Your task to perform on an android device: create a new album in the google photos Image 0: 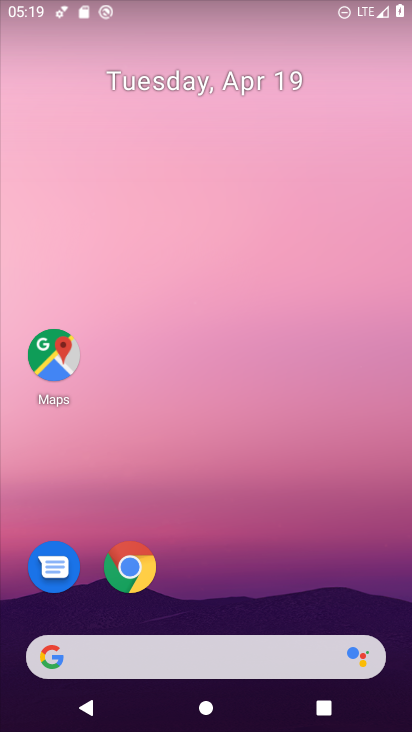
Step 0: drag from (193, 585) to (204, 76)
Your task to perform on an android device: create a new album in the google photos Image 1: 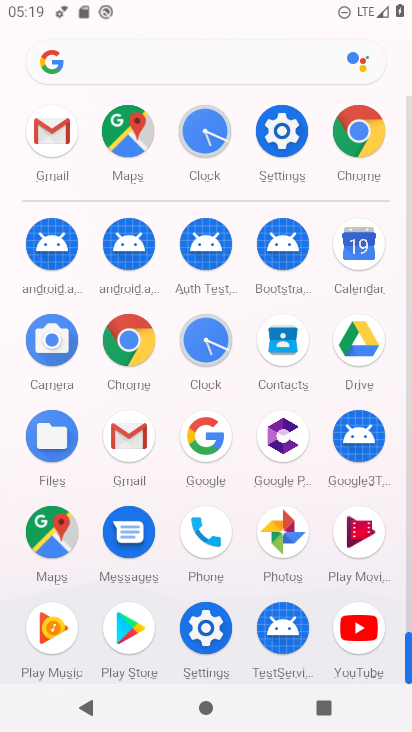
Step 1: click (303, 533)
Your task to perform on an android device: create a new album in the google photos Image 2: 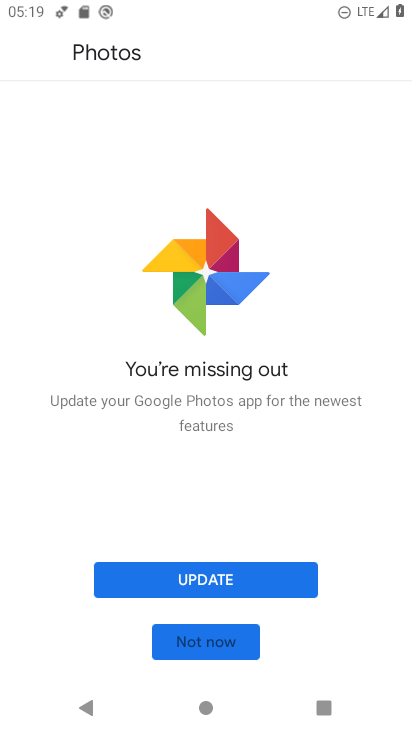
Step 2: click (201, 582)
Your task to perform on an android device: create a new album in the google photos Image 3: 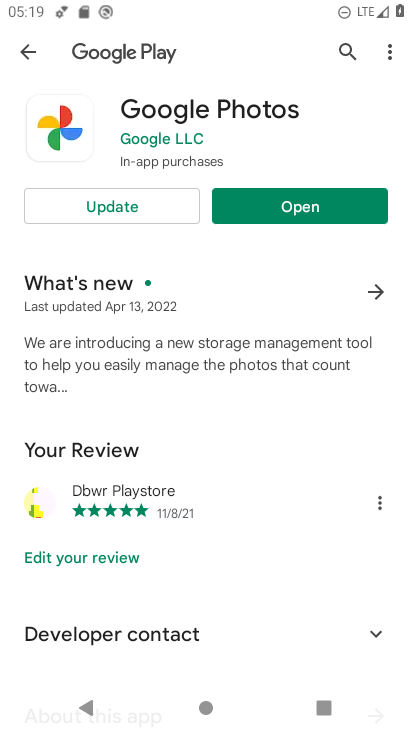
Step 3: click (170, 205)
Your task to perform on an android device: create a new album in the google photos Image 4: 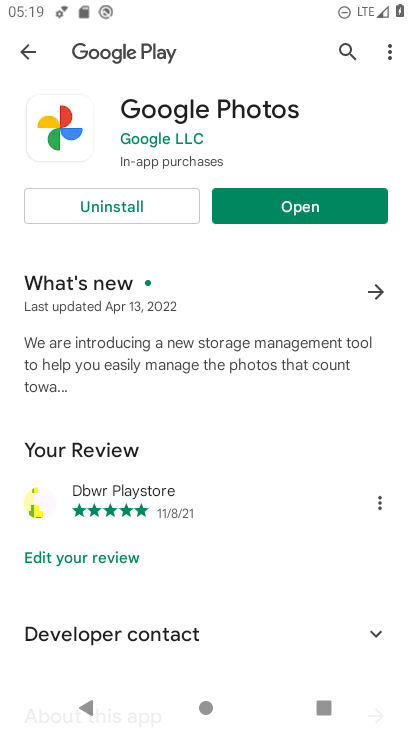
Step 4: click (275, 212)
Your task to perform on an android device: create a new album in the google photos Image 5: 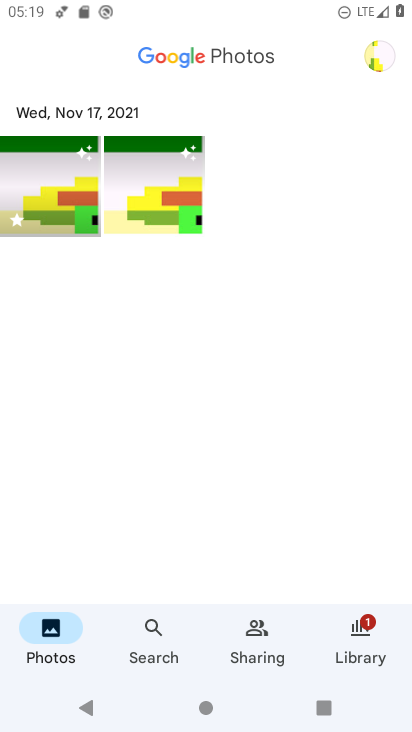
Step 5: click (369, 634)
Your task to perform on an android device: create a new album in the google photos Image 6: 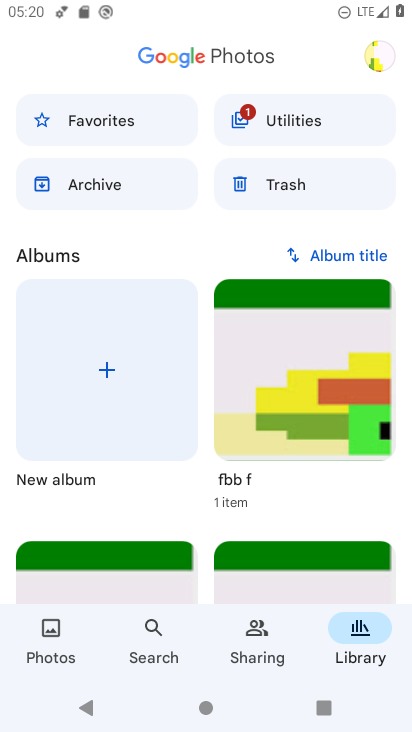
Step 6: drag from (220, 511) to (223, 261)
Your task to perform on an android device: create a new album in the google photos Image 7: 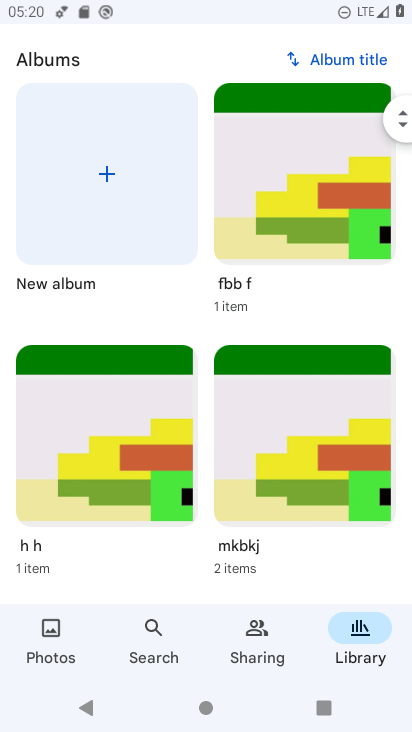
Step 7: click (108, 184)
Your task to perform on an android device: create a new album in the google photos Image 8: 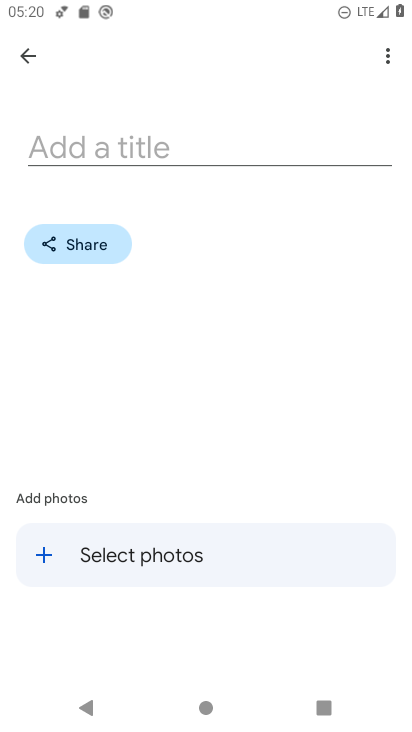
Step 8: click (211, 148)
Your task to perform on an android device: create a new album in the google photos Image 9: 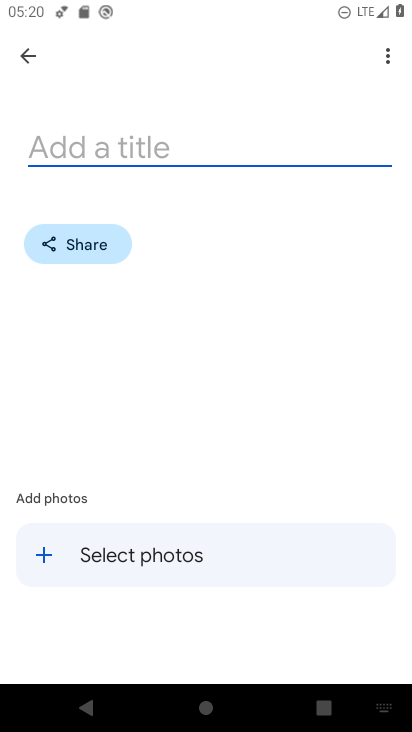
Step 9: type "ddfff"
Your task to perform on an android device: create a new album in the google photos Image 10: 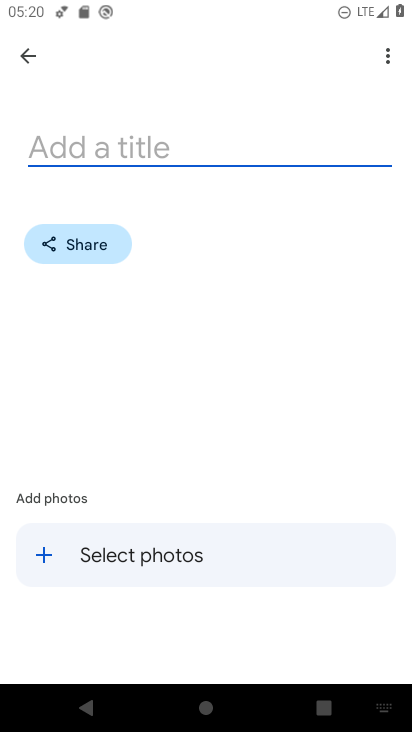
Step 10: click (43, 555)
Your task to perform on an android device: create a new album in the google photos Image 11: 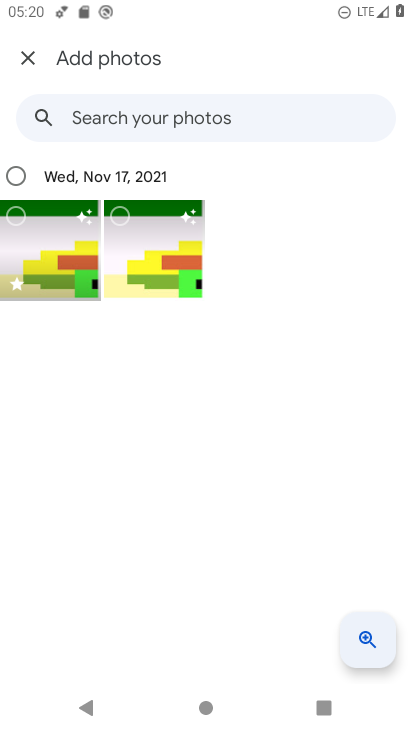
Step 11: click (62, 234)
Your task to perform on an android device: create a new album in the google photos Image 12: 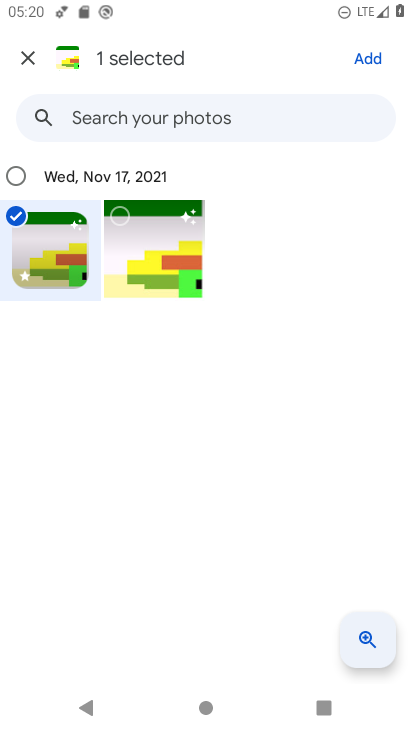
Step 12: click (376, 53)
Your task to perform on an android device: create a new album in the google photos Image 13: 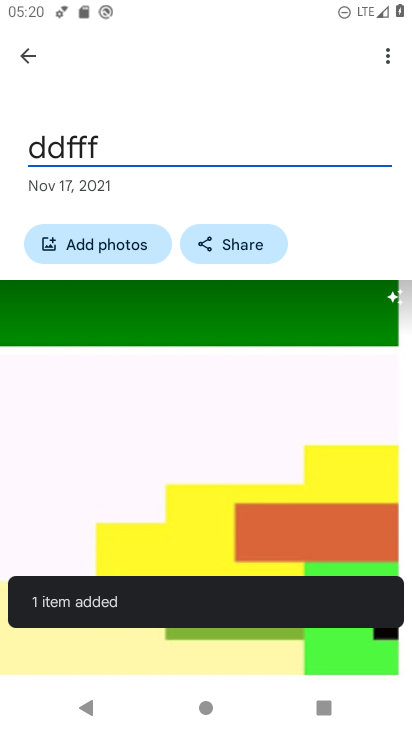
Step 13: task complete